Your task to perform on an android device: turn on airplane mode Image 0: 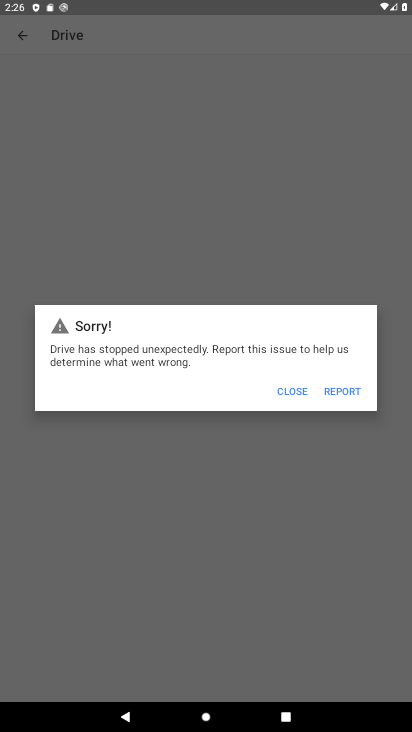
Step 0: press home button
Your task to perform on an android device: turn on airplane mode Image 1: 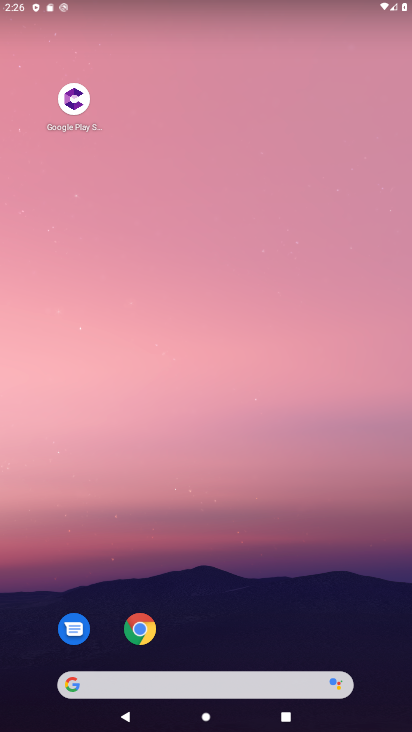
Step 1: drag from (257, 0) to (245, 600)
Your task to perform on an android device: turn on airplane mode Image 2: 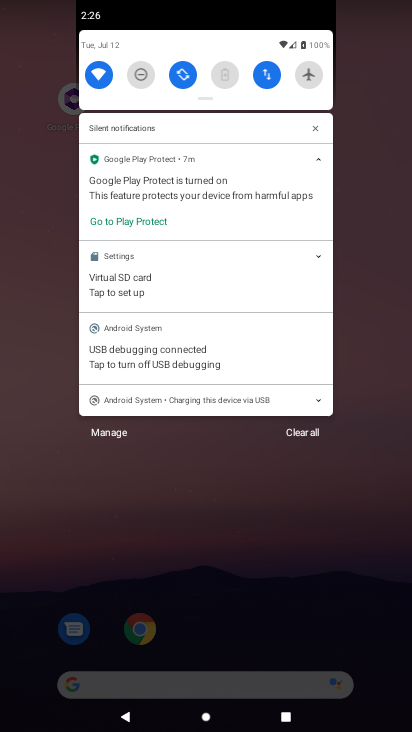
Step 2: drag from (206, 97) to (197, 725)
Your task to perform on an android device: turn on airplane mode Image 3: 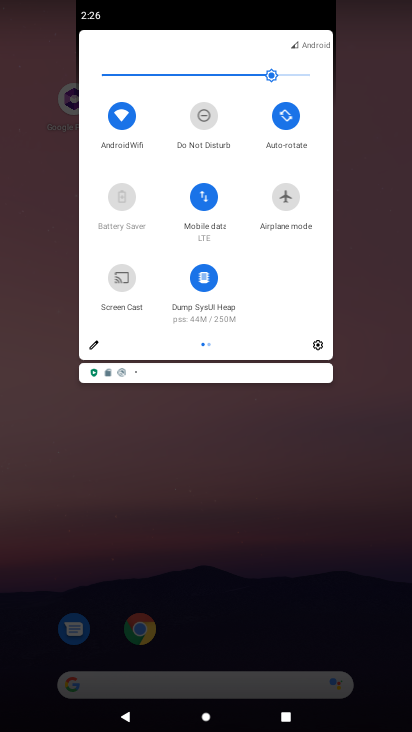
Step 3: click (285, 192)
Your task to perform on an android device: turn on airplane mode Image 4: 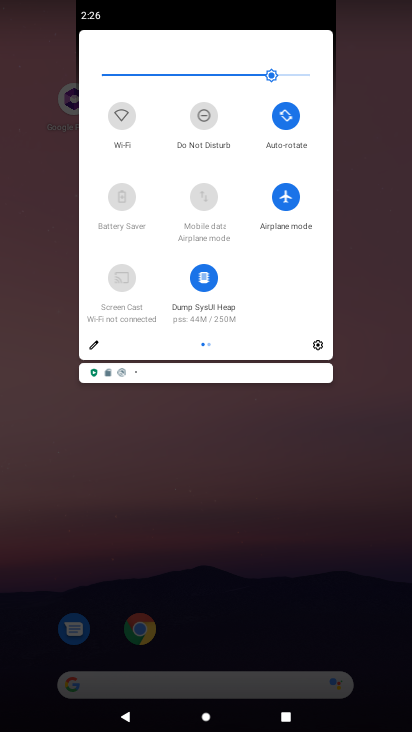
Step 4: task complete